Your task to perform on an android device: When is my next appointment? Image 0: 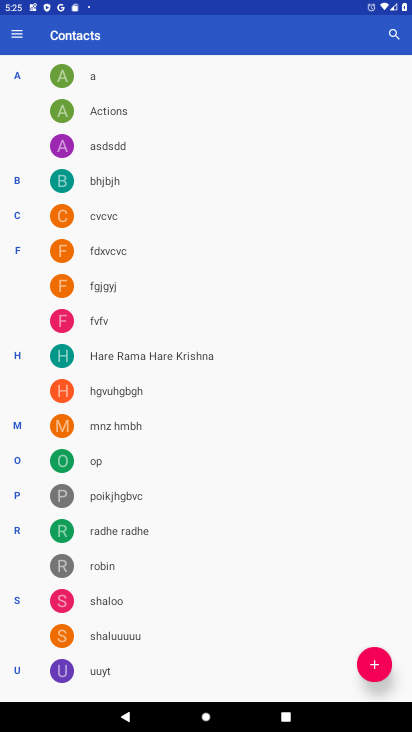
Step 0: press home button
Your task to perform on an android device: When is my next appointment? Image 1: 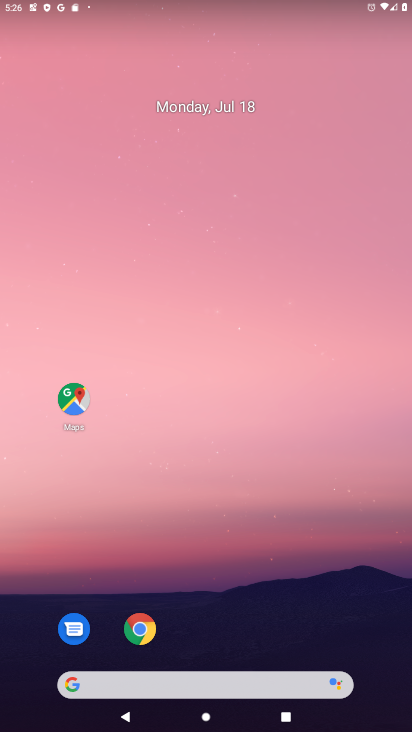
Step 1: drag from (270, 626) to (288, 158)
Your task to perform on an android device: When is my next appointment? Image 2: 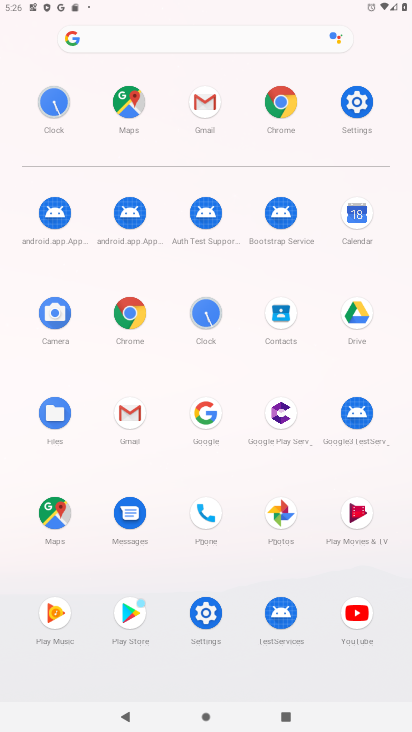
Step 2: click (364, 213)
Your task to perform on an android device: When is my next appointment? Image 3: 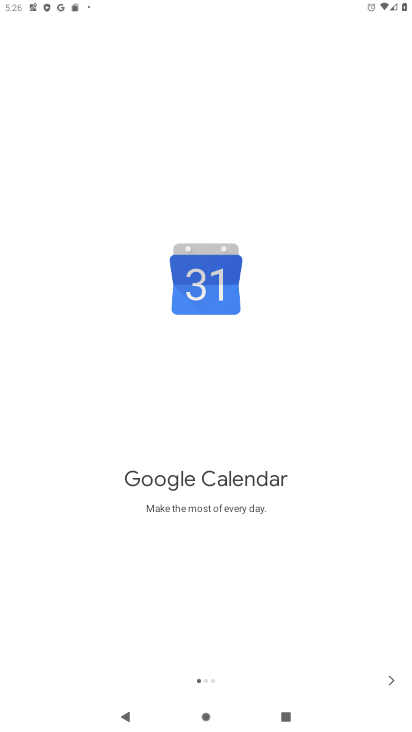
Step 3: click (392, 675)
Your task to perform on an android device: When is my next appointment? Image 4: 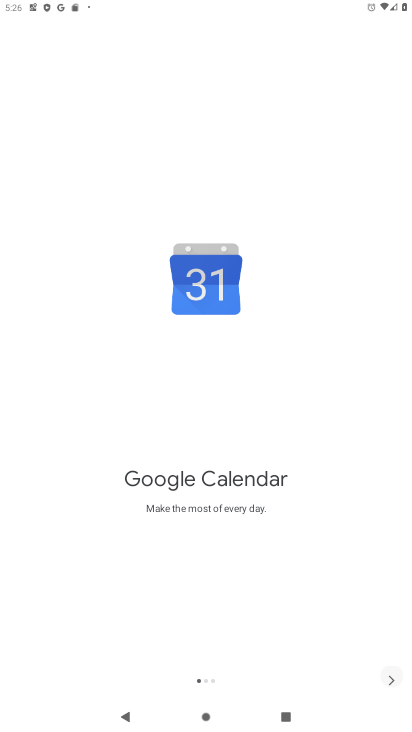
Step 4: click (392, 675)
Your task to perform on an android device: When is my next appointment? Image 5: 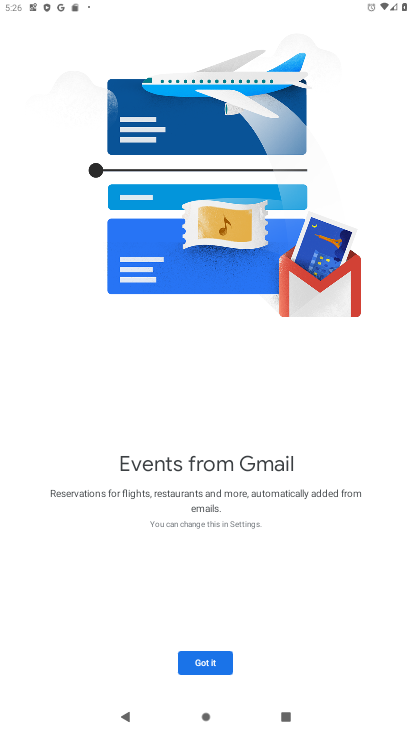
Step 5: click (197, 663)
Your task to perform on an android device: When is my next appointment? Image 6: 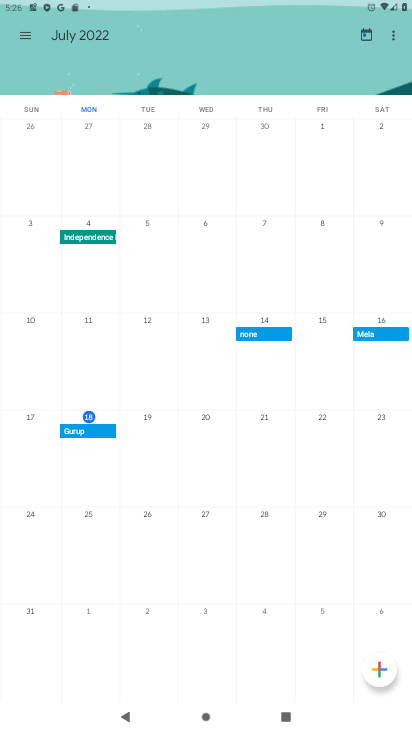
Step 6: click (101, 419)
Your task to perform on an android device: When is my next appointment? Image 7: 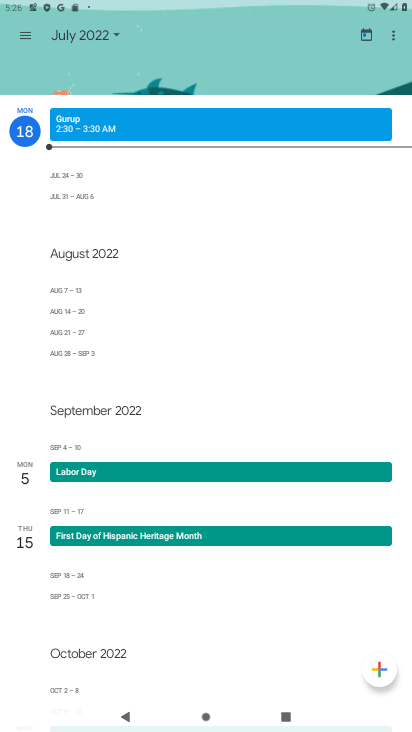
Step 7: click (23, 37)
Your task to perform on an android device: When is my next appointment? Image 8: 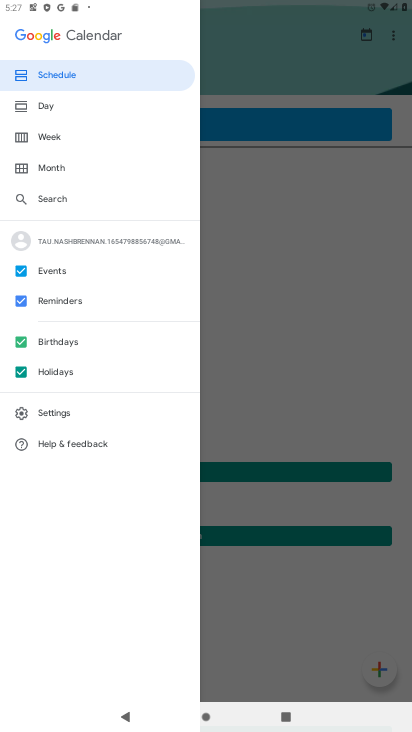
Step 8: click (53, 111)
Your task to perform on an android device: When is my next appointment? Image 9: 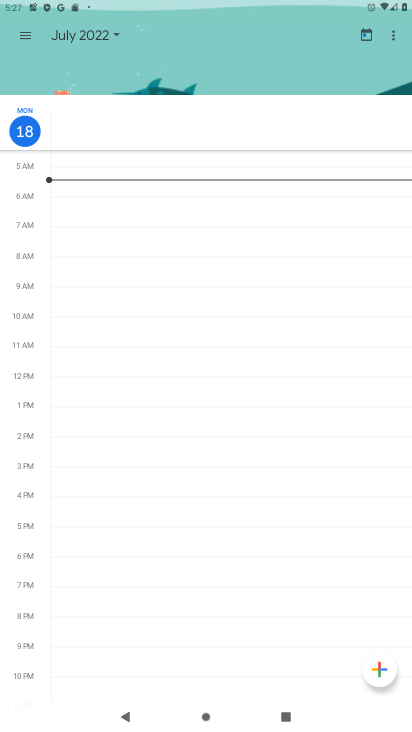
Step 9: task complete